Your task to perform on an android device: Turn on the flashlight Image 0: 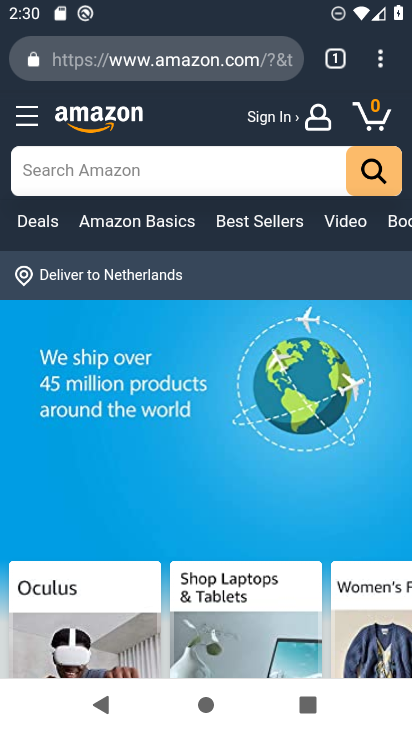
Step 0: press home button
Your task to perform on an android device: Turn on the flashlight Image 1: 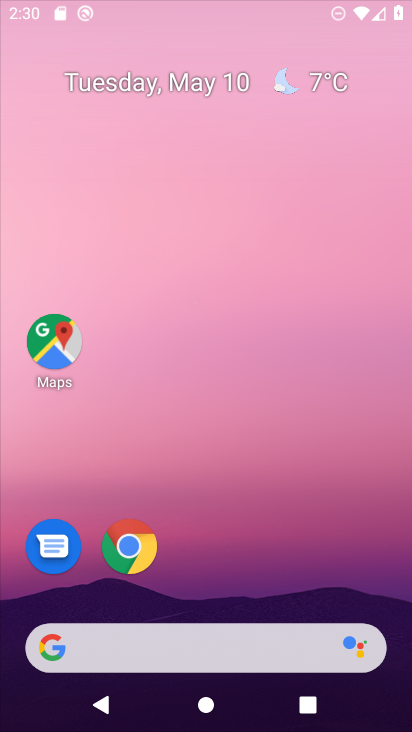
Step 1: drag from (269, 460) to (323, 112)
Your task to perform on an android device: Turn on the flashlight Image 2: 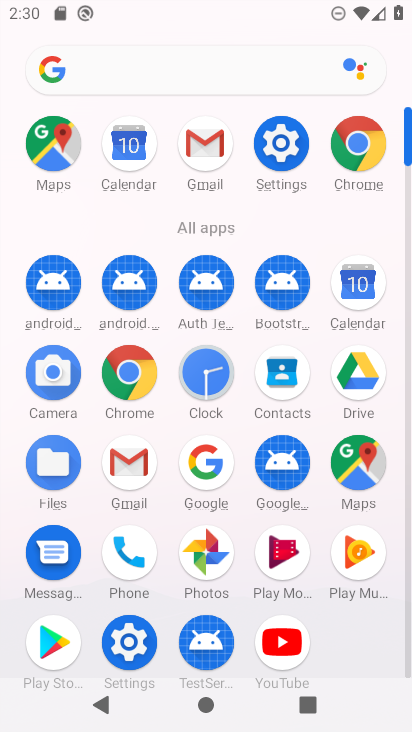
Step 2: click (292, 141)
Your task to perform on an android device: Turn on the flashlight Image 3: 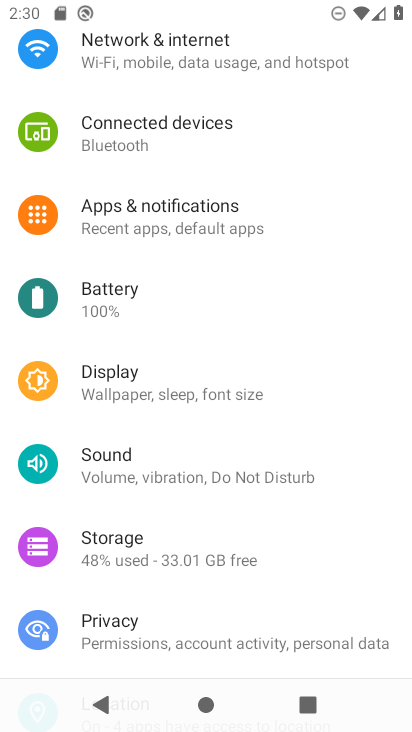
Step 3: drag from (202, 83) to (210, 490)
Your task to perform on an android device: Turn on the flashlight Image 4: 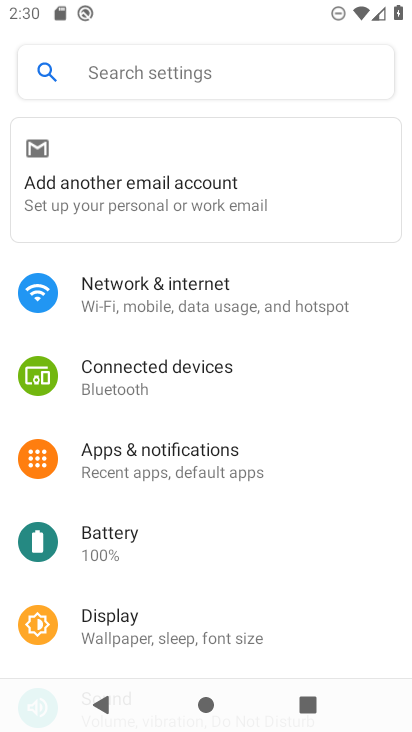
Step 4: click (180, 85)
Your task to perform on an android device: Turn on the flashlight Image 5: 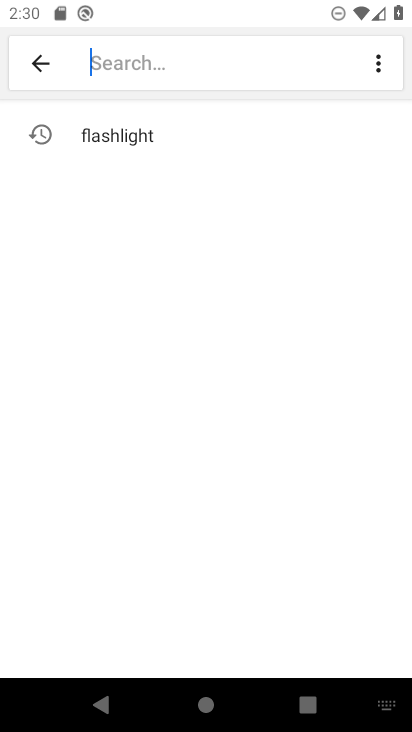
Step 5: click (151, 139)
Your task to perform on an android device: Turn on the flashlight Image 6: 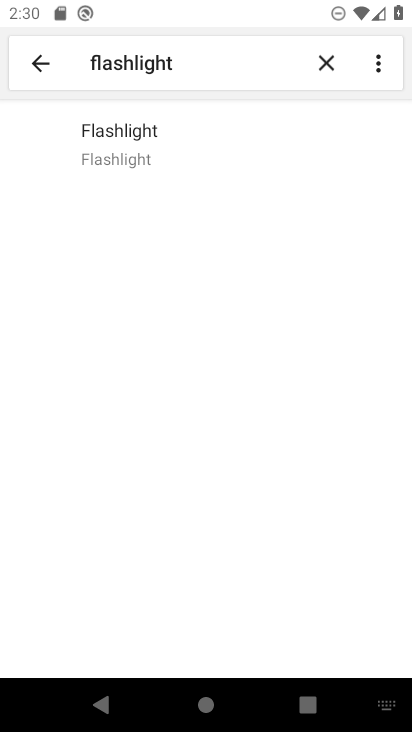
Step 6: task complete